Your task to perform on an android device: open wifi settings Image 0: 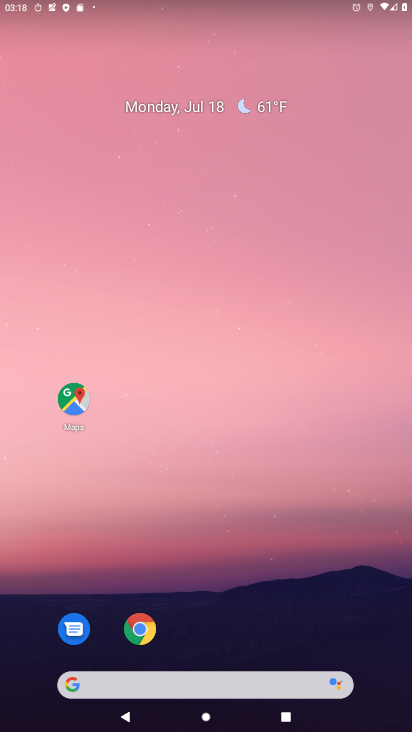
Step 0: drag from (208, 694) to (279, 90)
Your task to perform on an android device: open wifi settings Image 1: 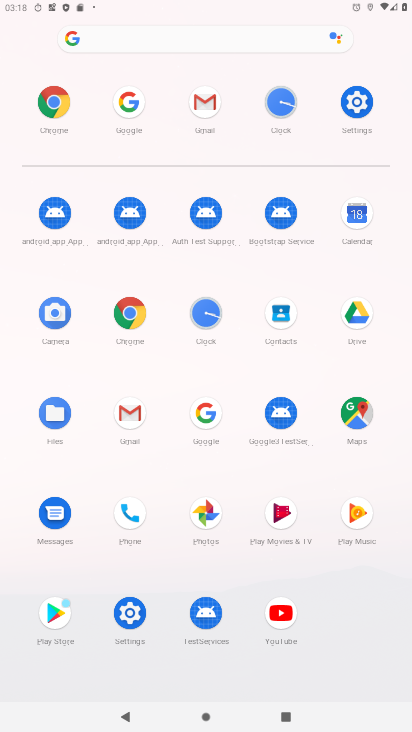
Step 1: click (358, 102)
Your task to perform on an android device: open wifi settings Image 2: 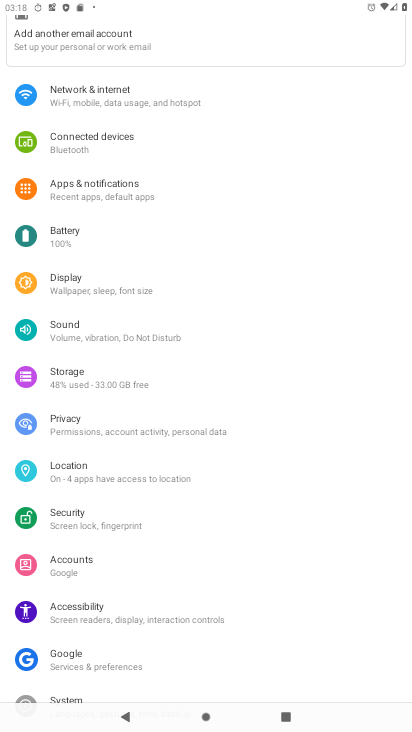
Step 2: click (109, 101)
Your task to perform on an android device: open wifi settings Image 3: 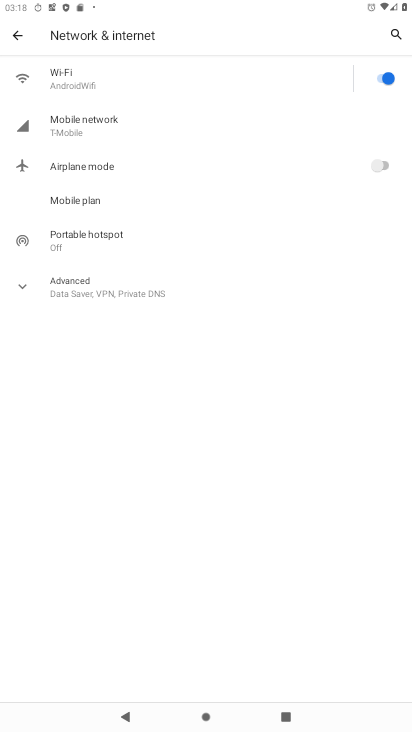
Step 3: click (74, 83)
Your task to perform on an android device: open wifi settings Image 4: 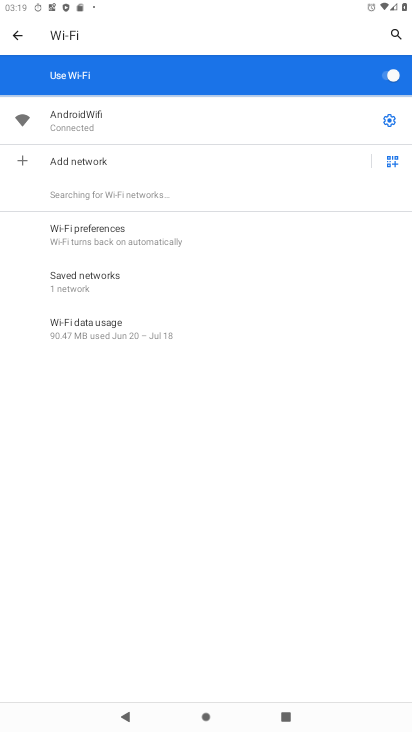
Step 4: click (391, 123)
Your task to perform on an android device: open wifi settings Image 5: 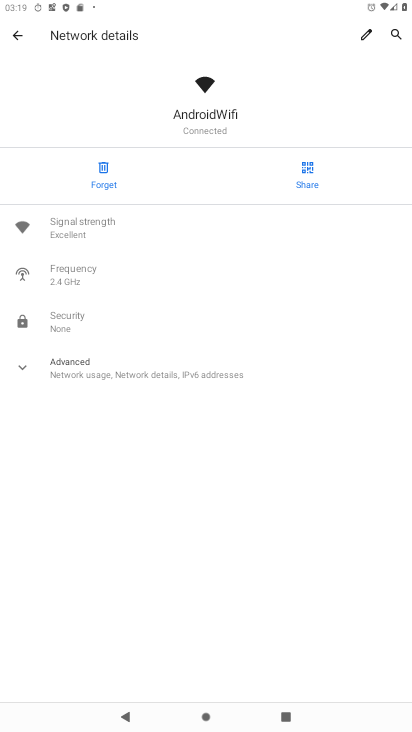
Step 5: task complete